Your task to perform on an android device: Go to Amazon Image 0: 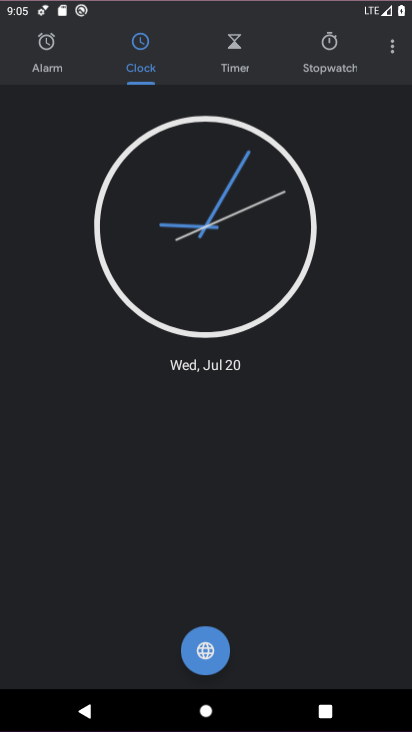
Step 0: press home button
Your task to perform on an android device: Go to Amazon Image 1: 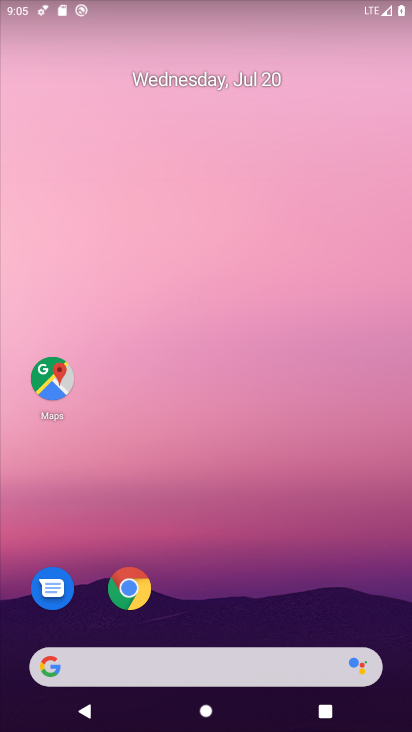
Step 1: click (125, 581)
Your task to perform on an android device: Go to Amazon Image 2: 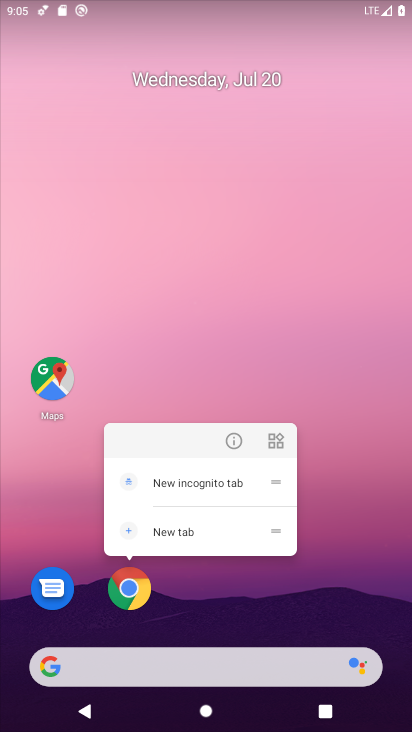
Step 2: click (128, 585)
Your task to perform on an android device: Go to Amazon Image 3: 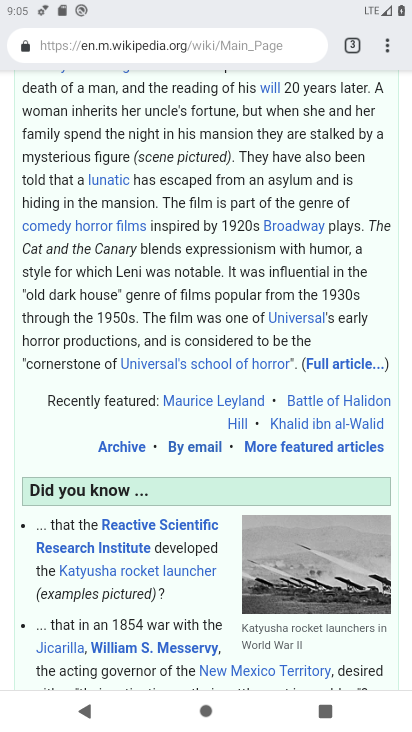
Step 3: click (350, 40)
Your task to perform on an android device: Go to Amazon Image 4: 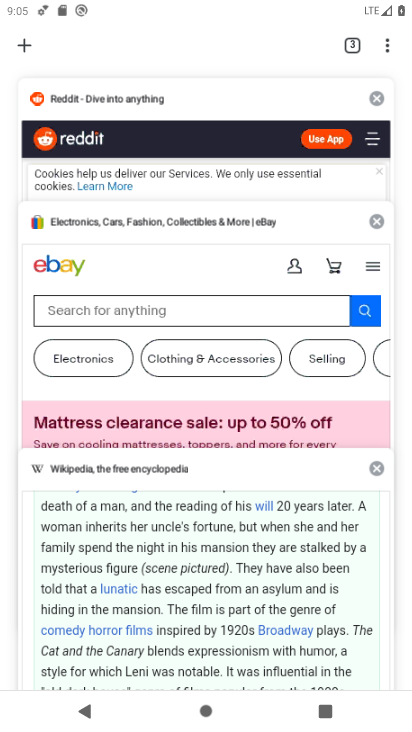
Step 4: click (31, 42)
Your task to perform on an android device: Go to Amazon Image 5: 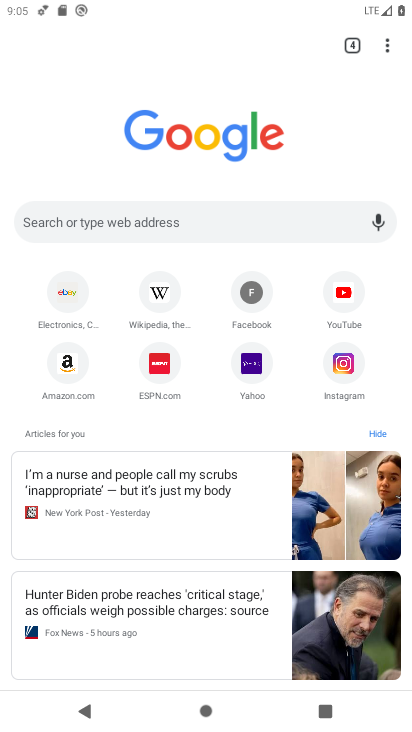
Step 5: click (68, 353)
Your task to perform on an android device: Go to Amazon Image 6: 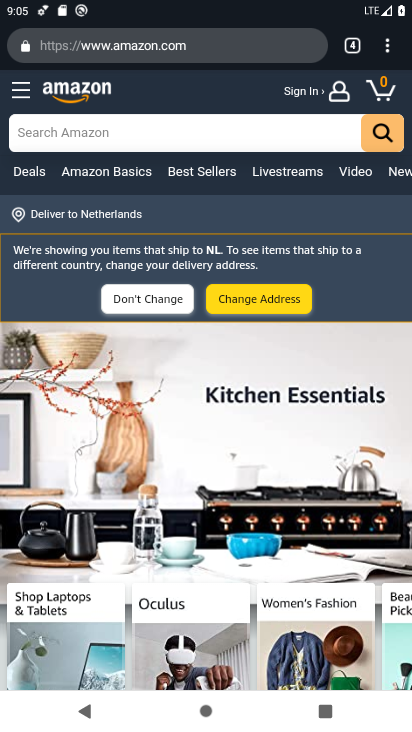
Step 6: task complete